Your task to perform on an android device: Open Google Chrome and open the bookmarks view Image 0: 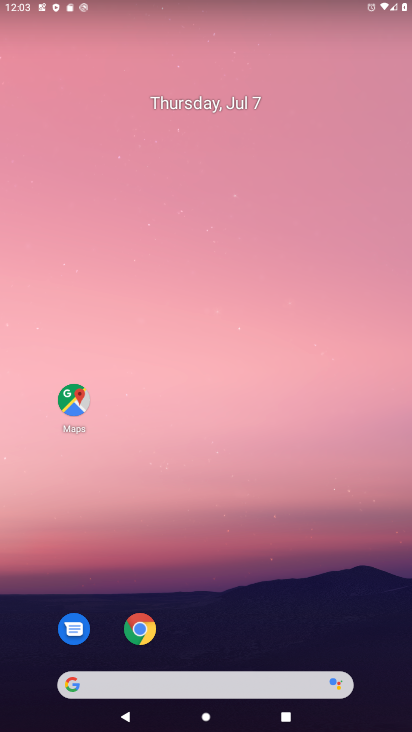
Step 0: click (127, 623)
Your task to perform on an android device: Open Google Chrome and open the bookmarks view Image 1: 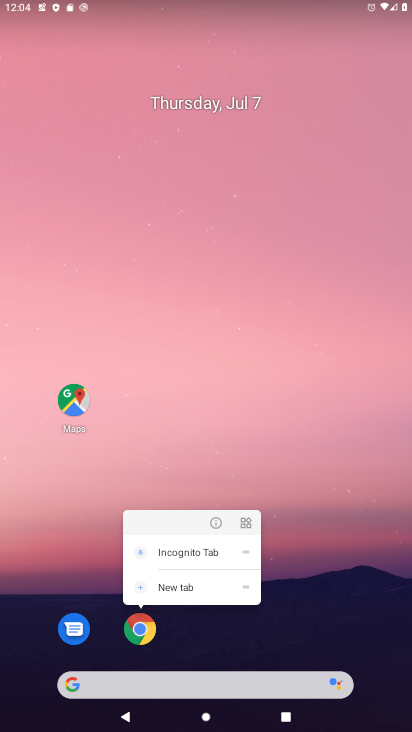
Step 1: click (156, 392)
Your task to perform on an android device: Open Google Chrome and open the bookmarks view Image 2: 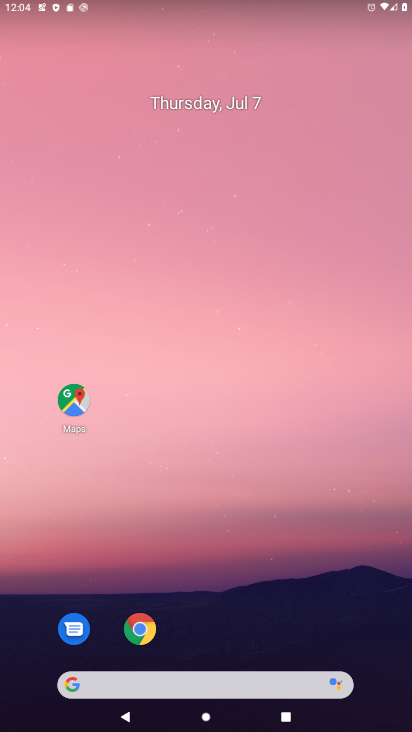
Step 2: click (128, 645)
Your task to perform on an android device: Open Google Chrome and open the bookmarks view Image 3: 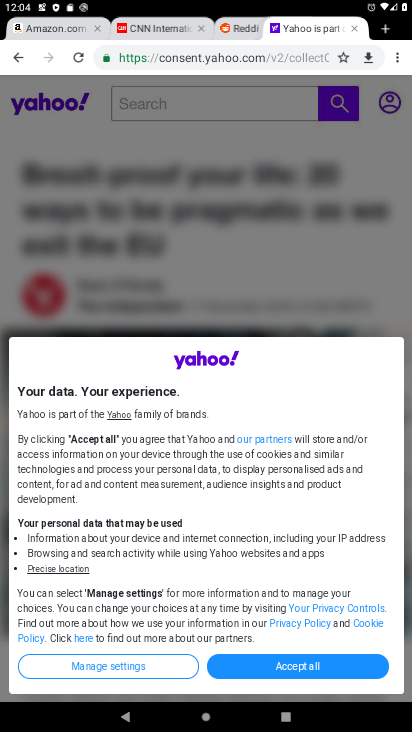
Step 3: click (394, 49)
Your task to perform on an android device: Open Google Chrome and open the bookmarks view Image 4: 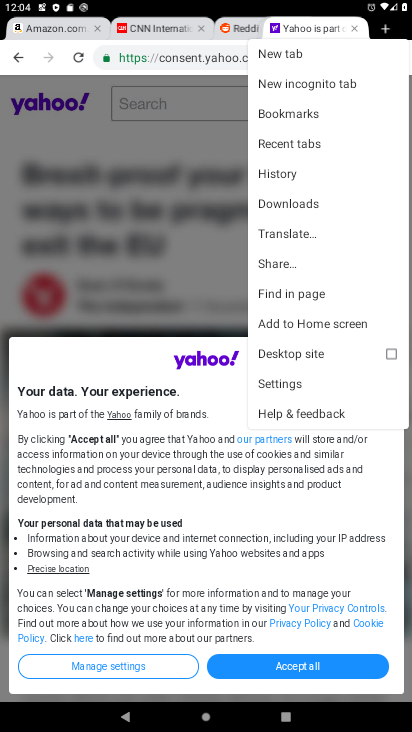
Step 4: click (274, 118)
Your task to perform on an android device: Open Google Chrome and open the bookmarks view Image 5: 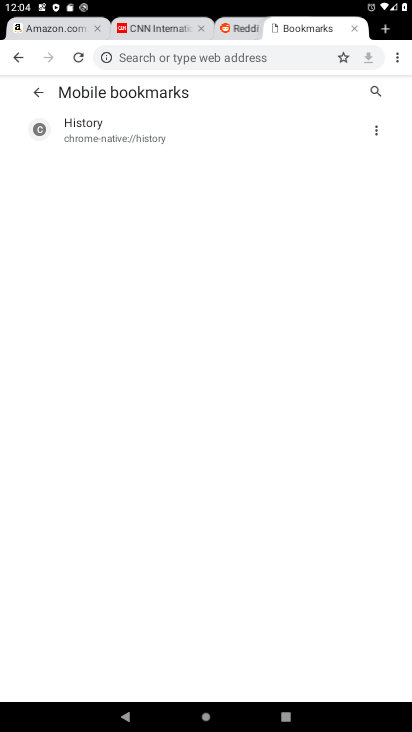
Step 5: task complete